Your task to perform on an android device: change notifications settings Image 0: 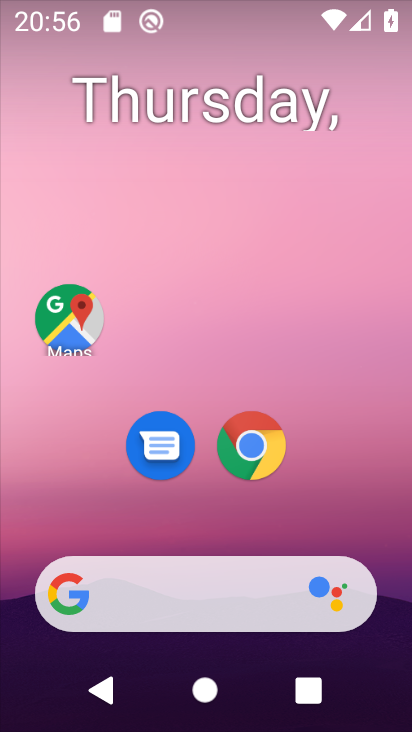
Step 0: drag from (279, 463) to (183, 98)
Your task to perform on an android device: change notifications settings Image 1: 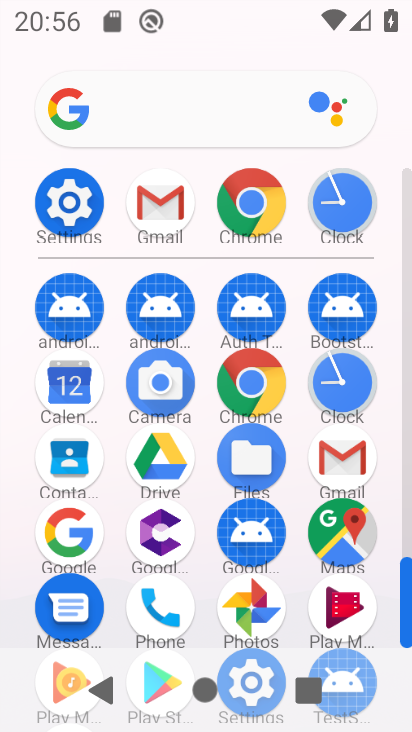
Step 1: click (75, 210)
Your task to perform on an android device: change notifications settings Image 2: 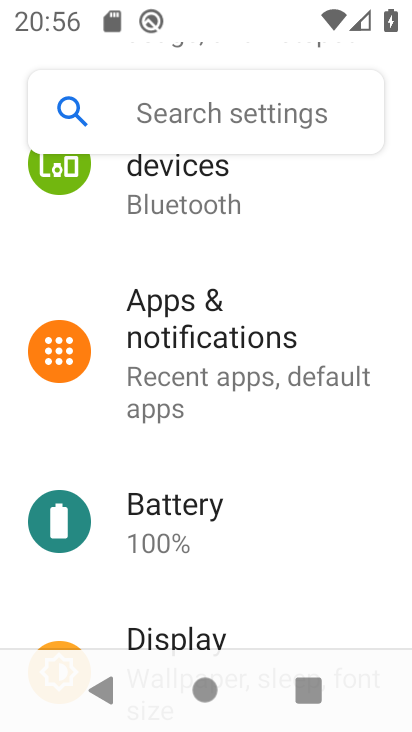
Step 2: click (263, 374)
Your task to perform on an android device: change notifications settings Image 3: 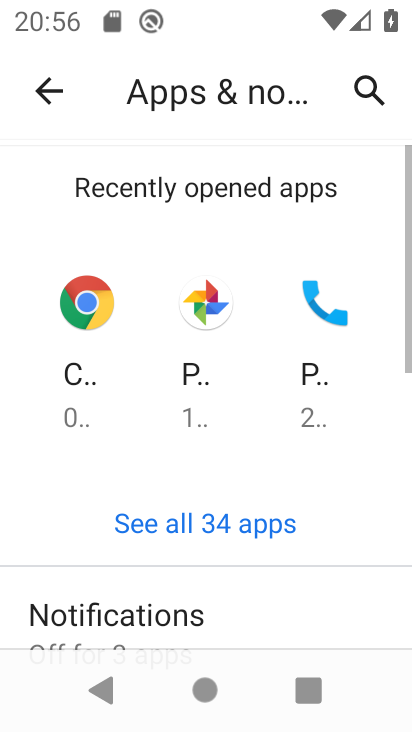
Step 3: drag from (258, 583) to (238, 245)
Your task to perform on an android device: change notifications settings Image 4: 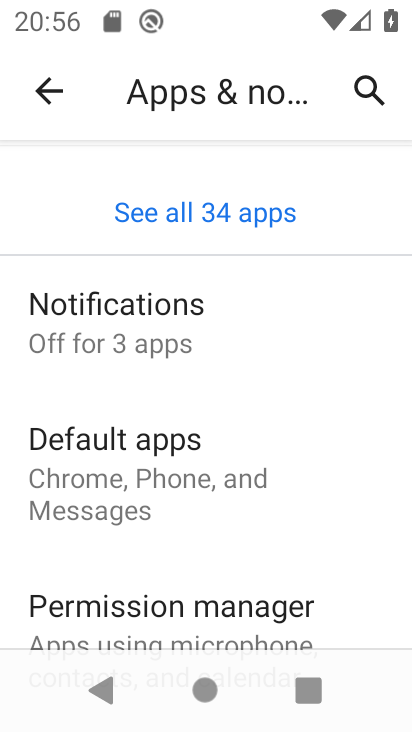
Step 4: click (142, 359)
Your task to perform on an android device: change notifications settings Image 5: 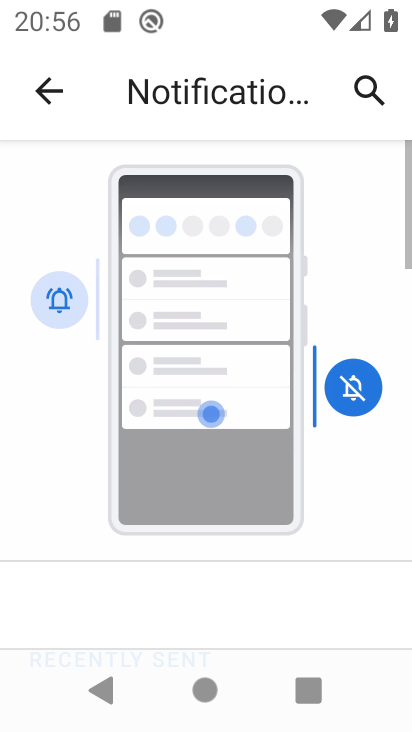
Step 5: drag from (200, 514) to (186, 101)
Your task to perform on an android device: change notifications settings Image 6: 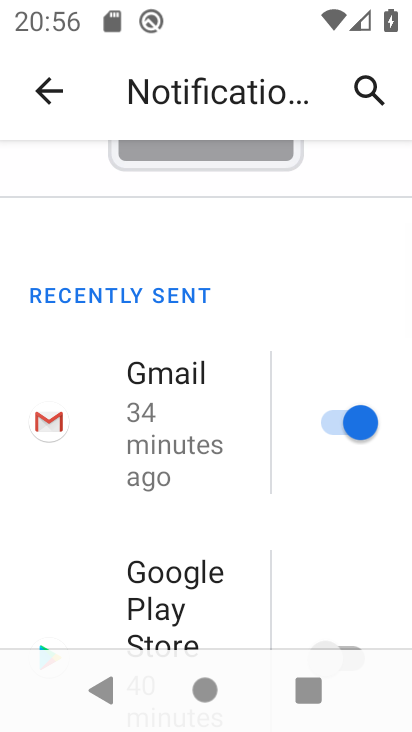
Step 6: drag from (173, 561) to (161, 169)
Your task to perform on an android device: change notifications settings Image 7: 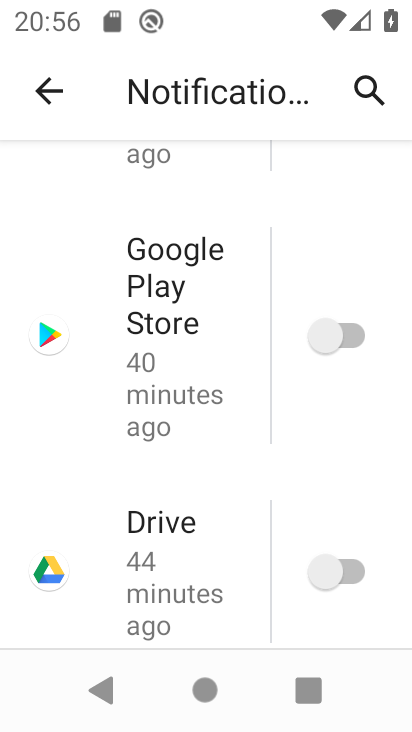
Step 7: drag from (137, 591) to (167, 113)
Your task to perform on an android device: change notifications settings Image 8: 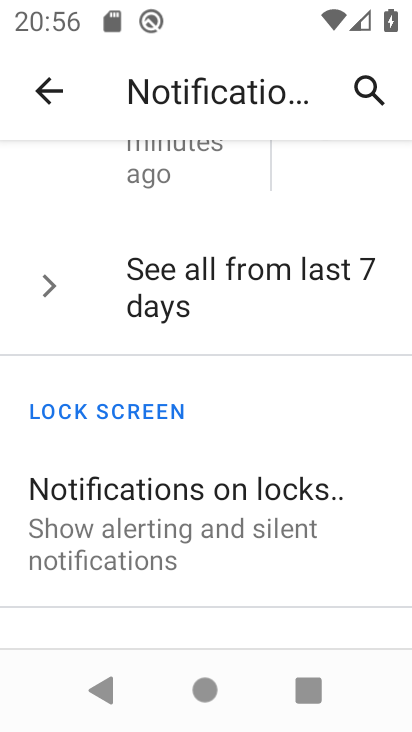
Step 8: click (130, 530)
Your task to perform on an android device: change notifications settings Image 9: 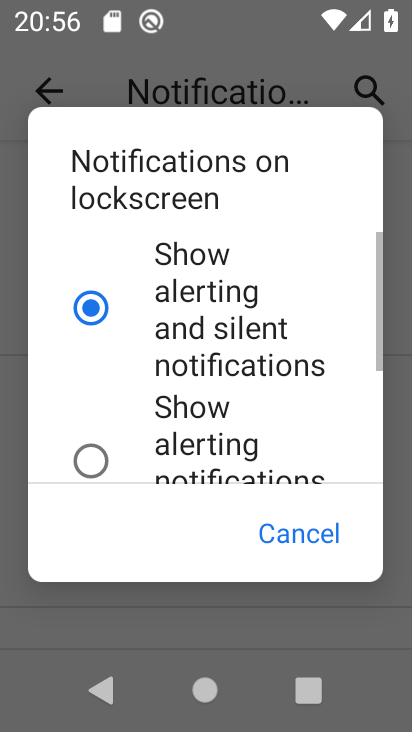
Step 9: click (141, 430)
Your task to perform on an android device: change notifications settings Image 10: 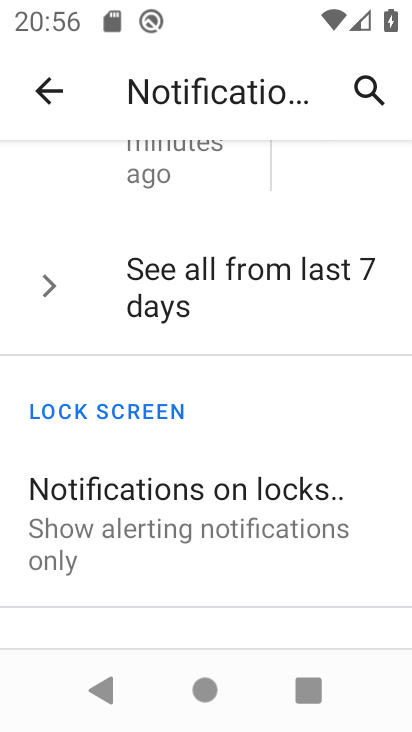
Step 10: task complete